Your task to perform on an android device: turn off data saver in the chrome app Image 0: 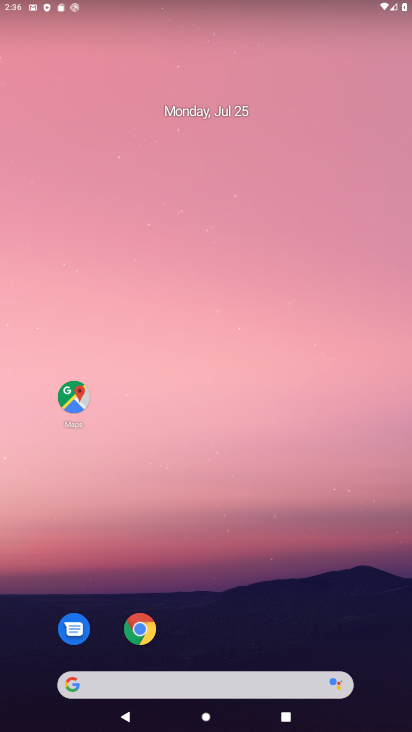
Step 0: click (145, 641)
Your task to perform on an android device: turn off data saver in the chrome app Image 1: 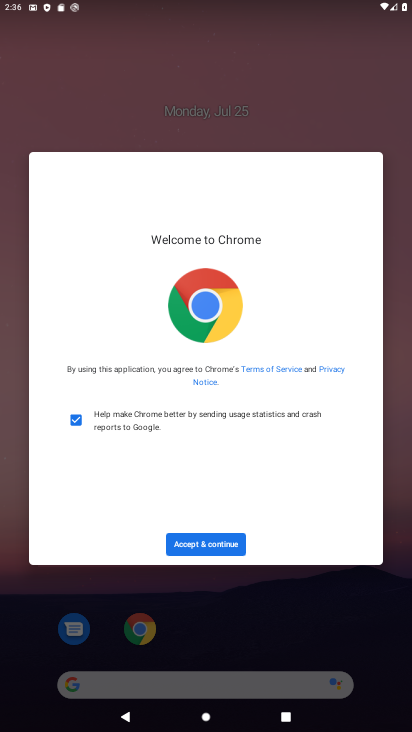
Step 1: click (225, 547)
Your task to perform on an android device: turn off data saver in the chrome app Image 2: 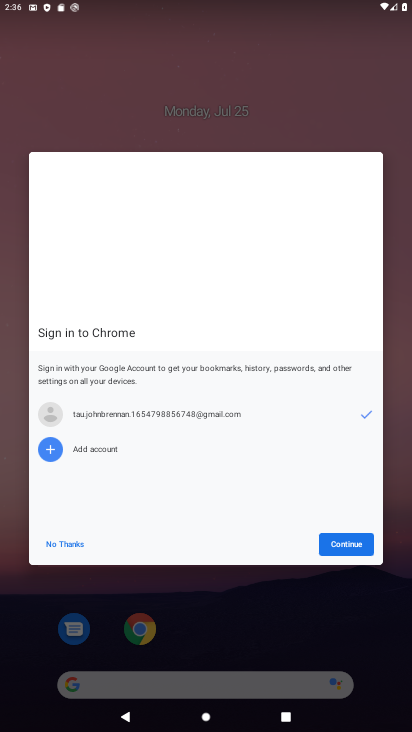
Step 2: click (29, 552)
Your task to perform on an android device: turn off data saver in the chrome app Image 3: 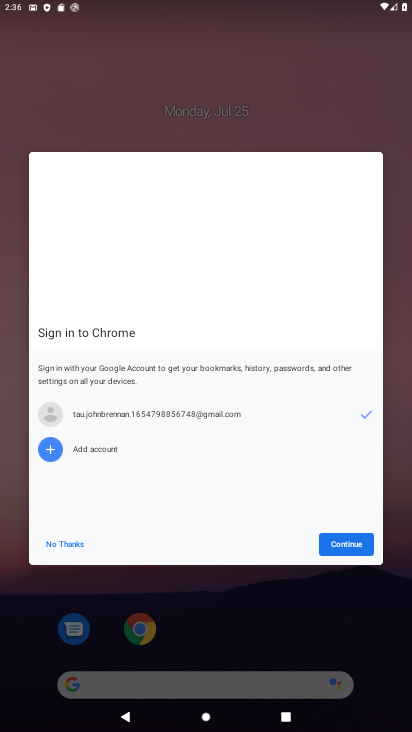
Step 3: click (48, 551)
Your task to perform on an android device: turn off data saver in the chrome app Image 4: 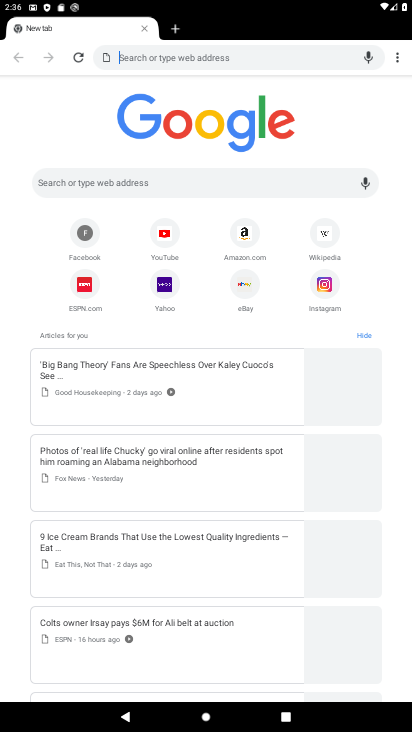
Step 4: drag from (395, 61) to (291, 269)
Your task to perform on an android device: turn off data saver in the chrome app Image 5: 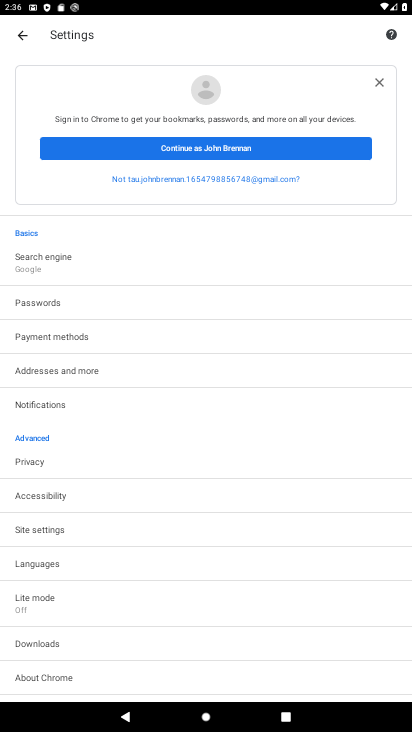
Step 5: click (53, 607)
Your task to perform on an android device: turn off data saver in the chrome app Image 6: 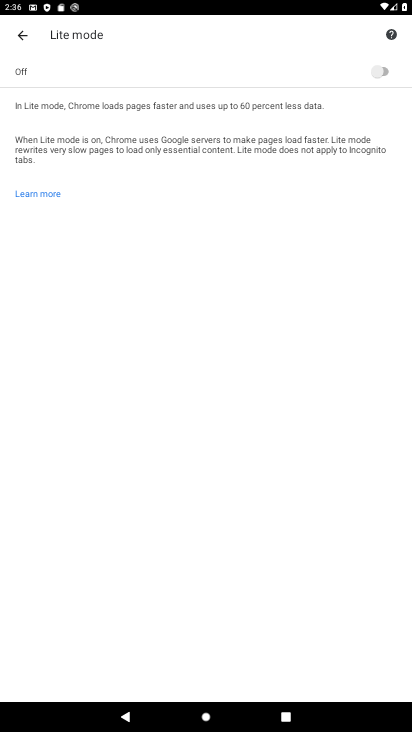
Step 6: task complete